Your task to perform on an android device: Search for sushi restaurants on Maps Image 0: 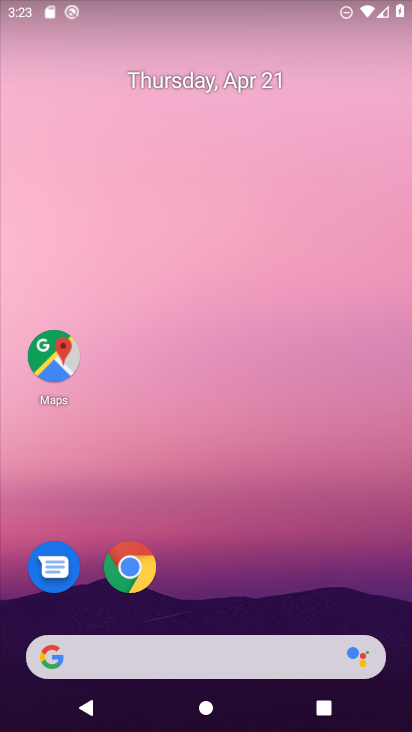
Step 0: drag from (258, 599) to (255, 6)
Your task to perform on an android device: Search for sushi restaurants on Maps Image 1: 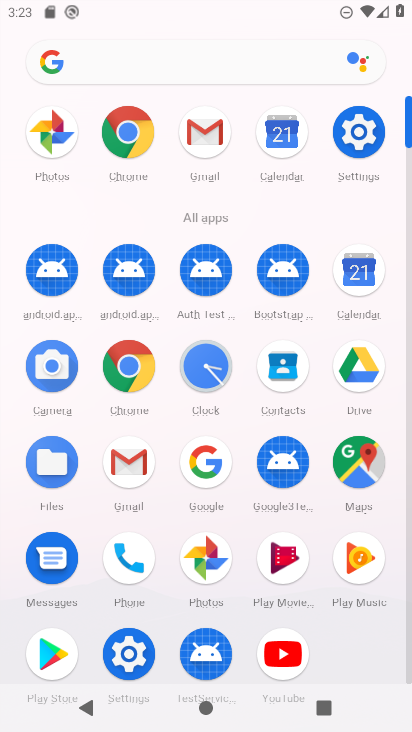
Step 1: click (351, 456)
Your task to perform on an android device: Search for sushi restaurants on Maps Image 2: 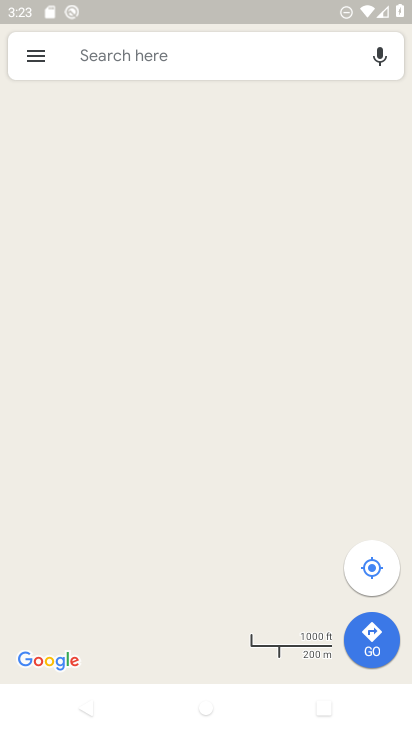
Step 2: click (275, 101)
Your task to perform on an android device: Search for sushi restaurants on Maps Image 3: 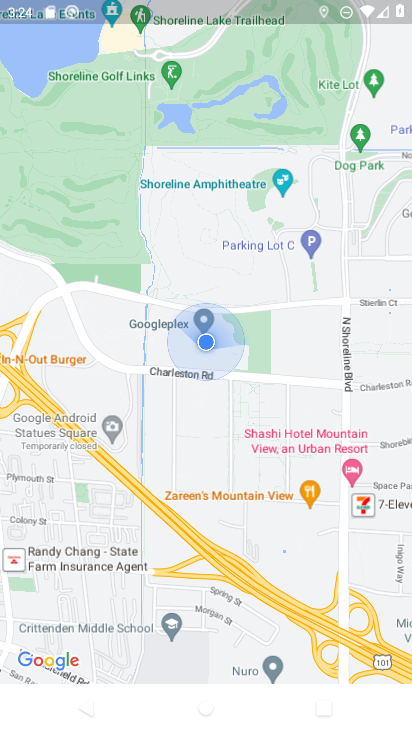
Step 3: click (347, 337)
Your task to perform on an android device: Search for sushi restaurants on Maps Image 4: 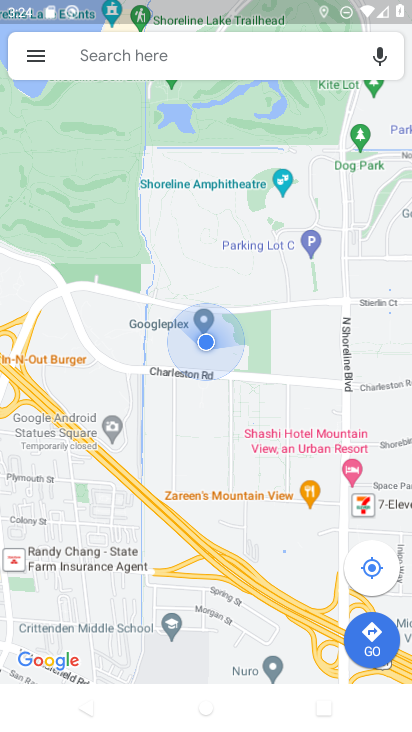
Step 4: click (179, 38)
Your task to perform on an android device: Search for sushi restaurants on Maps Image 5: 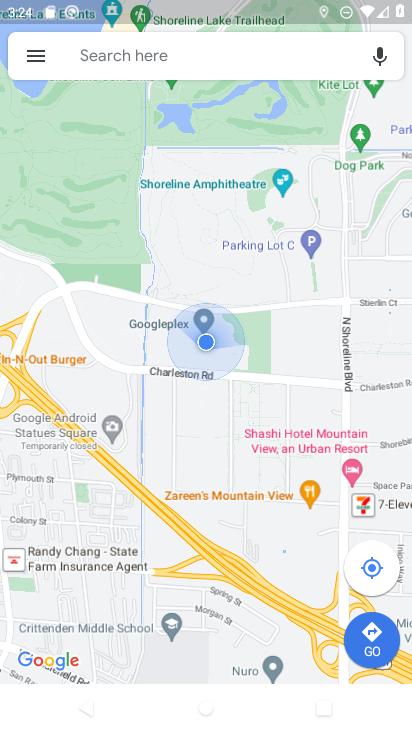
Step 5: click (179, 38)
Your task to perform on an android device: Search for sushi restaurants on Maps Image 6: 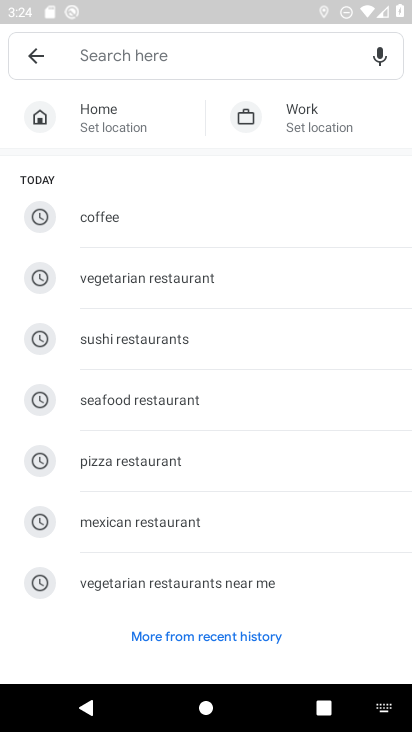
Step 6: click (153, 352)
Your task to perform on an android device: Search for sushi restaurants on Maps Image 7: 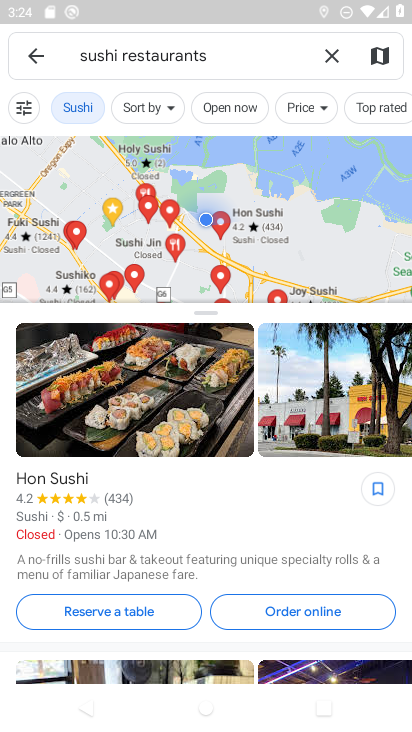
Step 7: task complete